Your task to perform on an android device: turn on priority inbox in the gmail app Image 0: 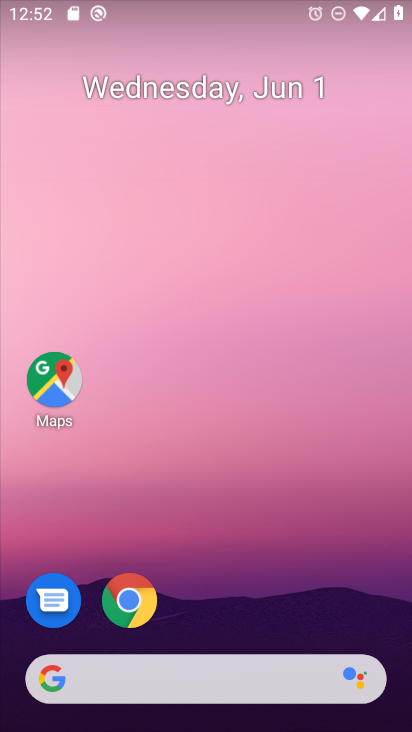
Step 0: press home button
Your task to perform on an android device: turn on priority inbox in the gmail app Image 1: 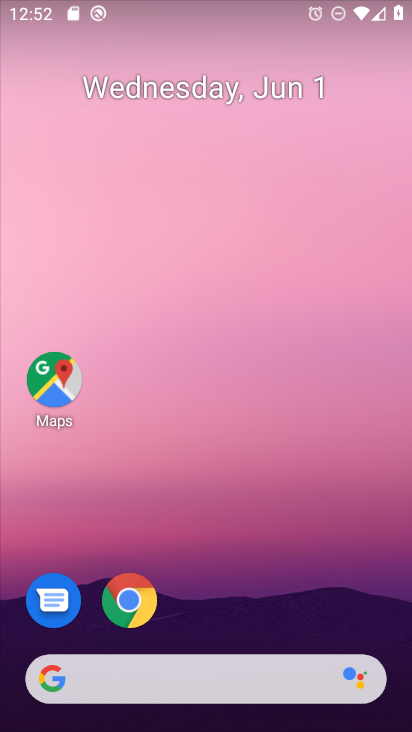
Step 1: drag from (224, 626) to (246, 155)
Your task to perform on an android device: turn on priority inbox in the gmail app Image 2: 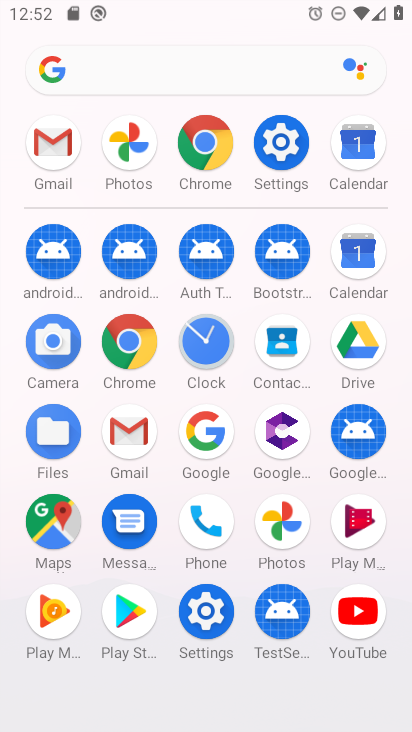
Step 2: click (127, 418)
Your task to perform on an android device: turn on priority inbox in the gmail app Image 3: 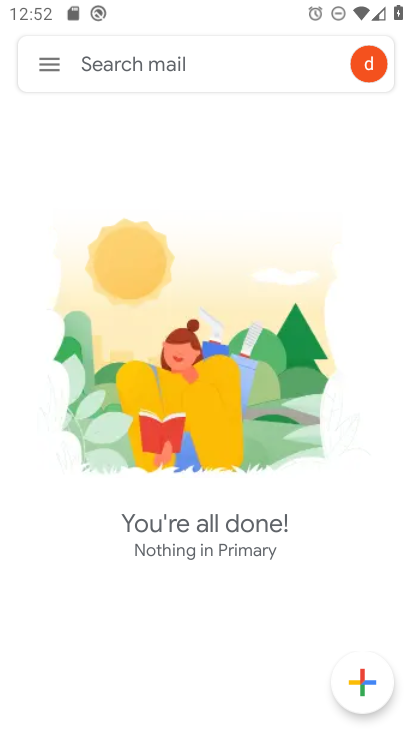
Step 3: click (54, 57)
Your task to perform on an android device: turn on priority inbox in the gmail app Image 4: 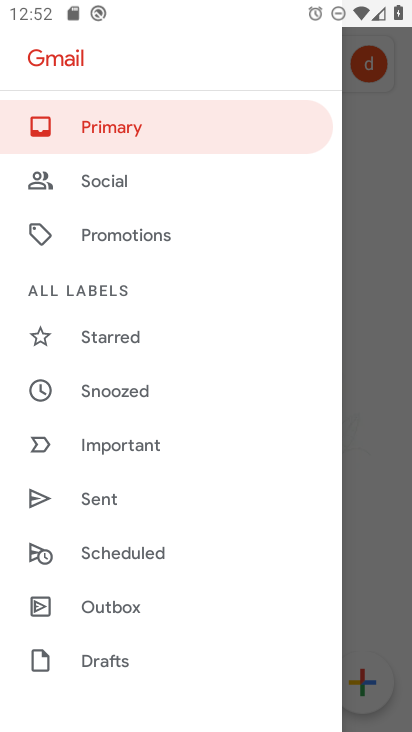
Step 4: drag from (152, 664) to (183, 155)
Your task to perform on an android device: turn on priority inbox in the gmail app Image 5: 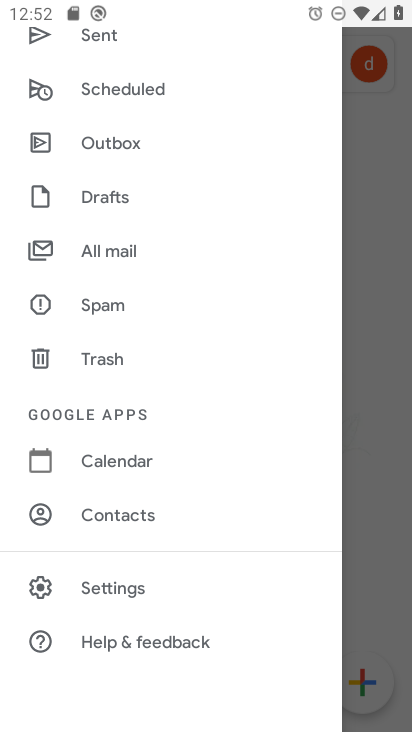
Step 5: click (149, 586)
Your task to perform on an android device: turn on priority inbox in the gmail app Image 6: 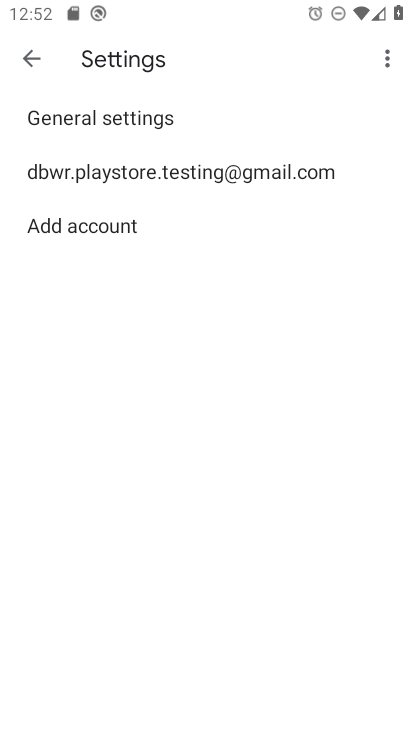
Step 6: click (213, 168)
Your task to perform on an android device: turn on priority inbox in the gmail app Image 7: 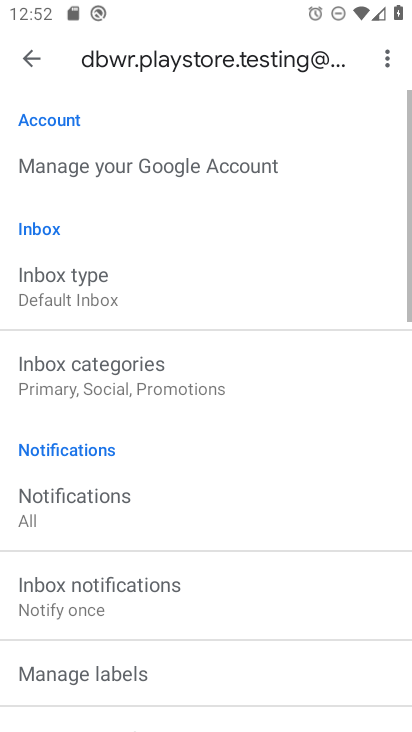
Step 7: click (113, 282)
Your task to perform on an android device: turn on priority inbox in the gmail app Image 8: 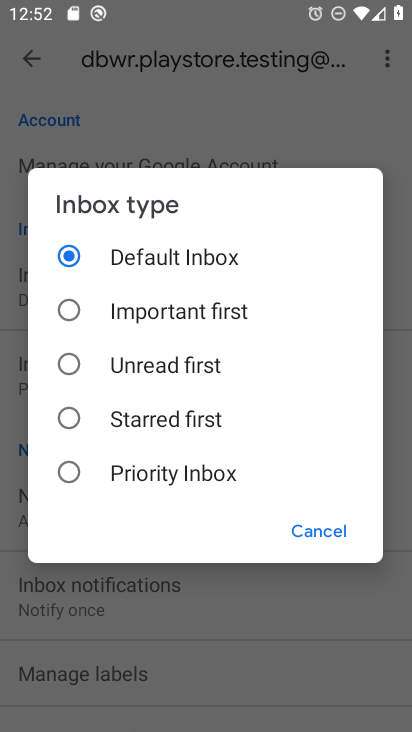
Step 8: click (116, 471)
Your task to perform on an android device: turn on priority inbox in the gmail app Image 9: 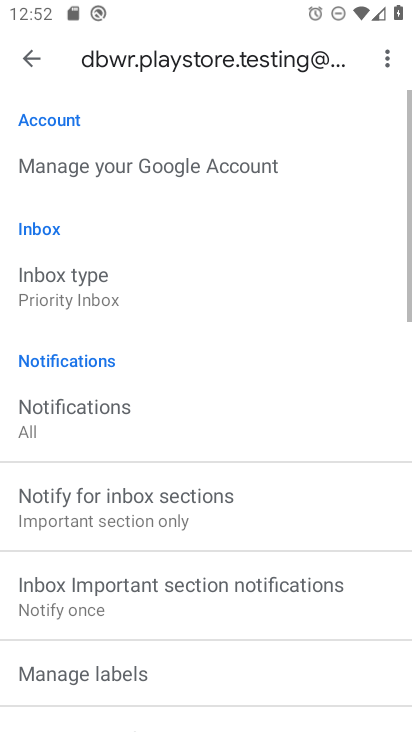
Step 9: task complete